Your task to perform on an android device: remove spam from my inbox in the gmail app Image 0: 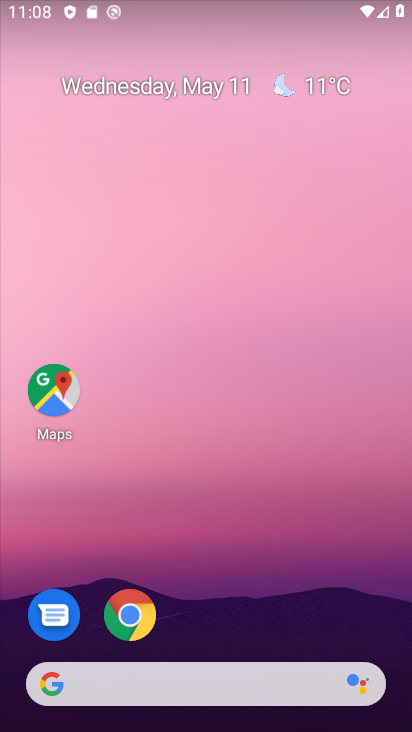
Step 0: drag from (196, 649) to (315, 232)
Your task to perform on an android device: remove spam from my inbox in the gmail app Image 1: 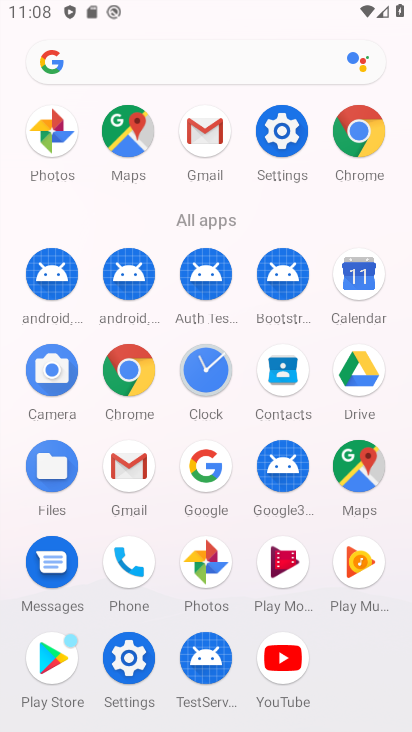
Step 1: click (124, 466)
Your task to perform on an android device: remove spam from my inbox in the gmail app Image 2: 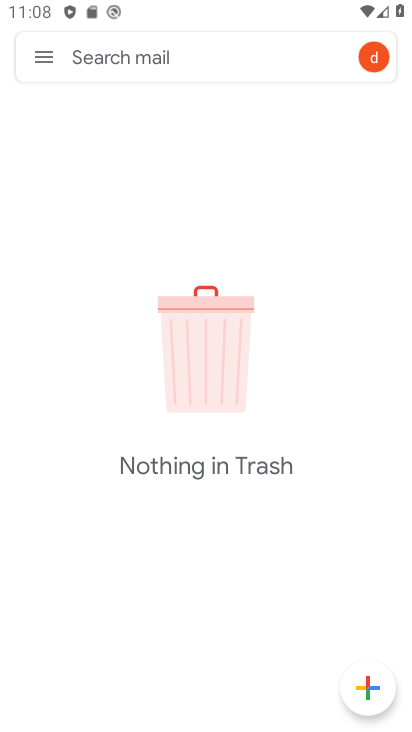
Step 2: click (41, 55)
Your task to perform on an android device: remove spam from my inbox in the gmail app Image 3: 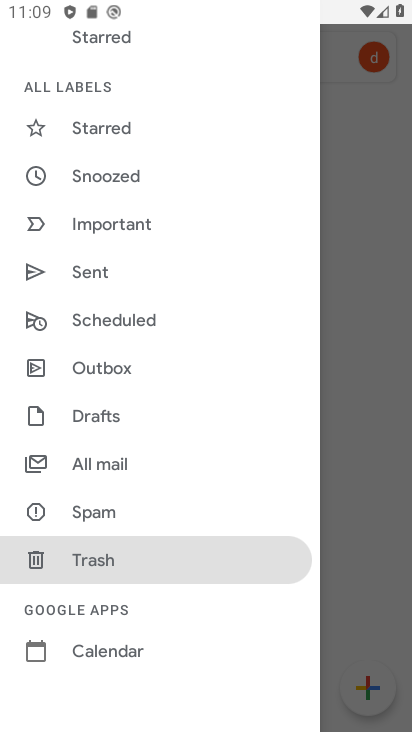
Step 3: click (111, 518)
Your task to perform on an android device: remove spam from my inbox in the gmail app Image 4: 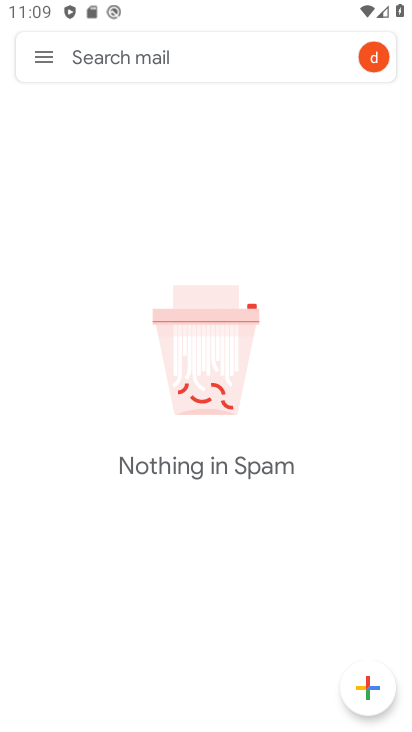
Step 4: task complete